Your task to perform on an android device: turn off data saver in the chrome app Image 0: 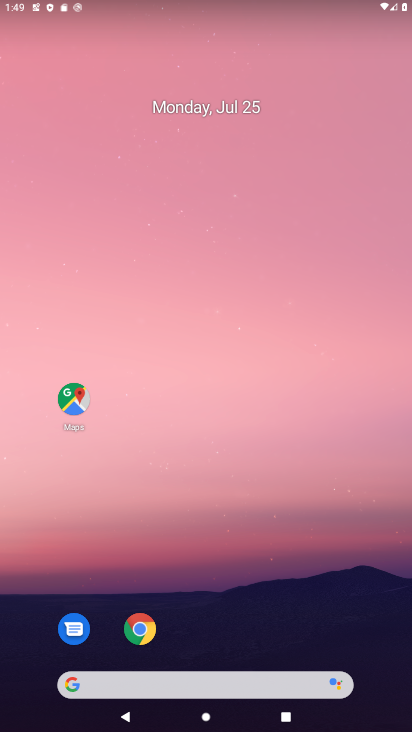
Step 0: drag from (183, 639) to (72, 6)
Your task to perform on an android device: turn off data saver in the chrome app Image 1: 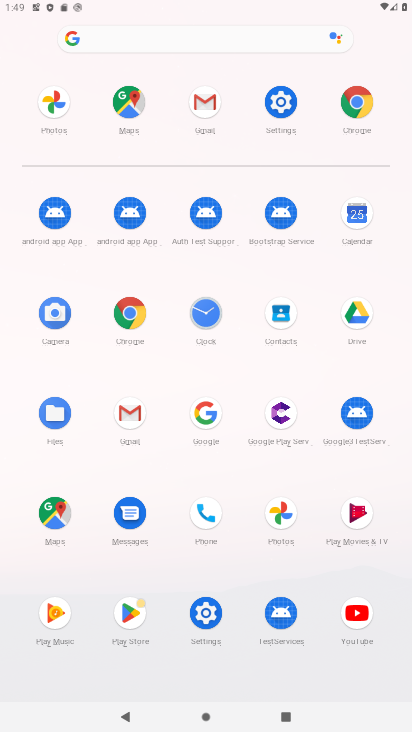
Step 1: click (140, 248)
Your task to perform on an android device: turn off data saver in the chrome app Image 2: 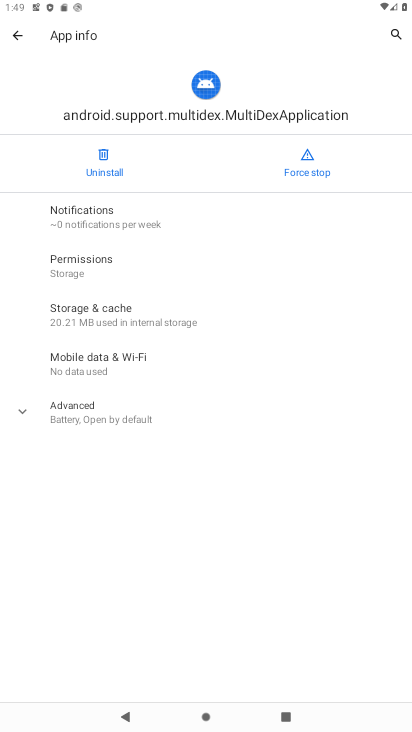
Step 2: click (19, 43)
Your task to perform on an android device: turn off data saver in the chrome app Image 3: 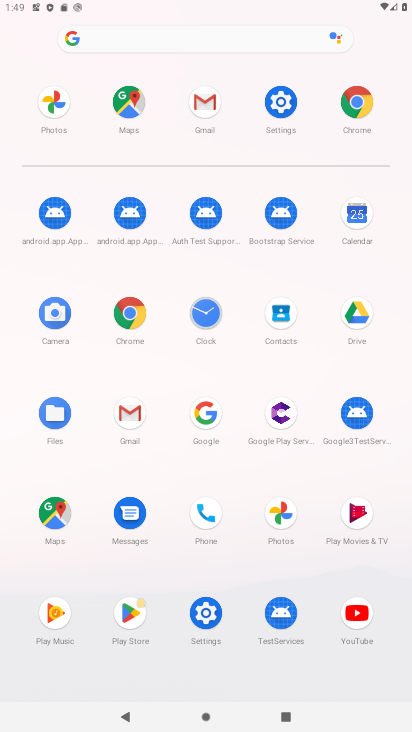
Step 3: drag from (215, 536) to (238, 221)
Your task to perform on an android device: turn off data saver in the chrome app Image 4: 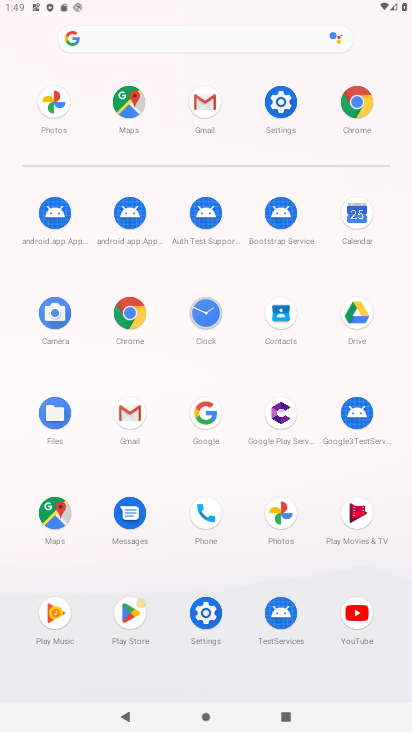
Step 4: click (128, 318)
Your task to perform on an android device: turn off data saver in the chrome app Image 5: 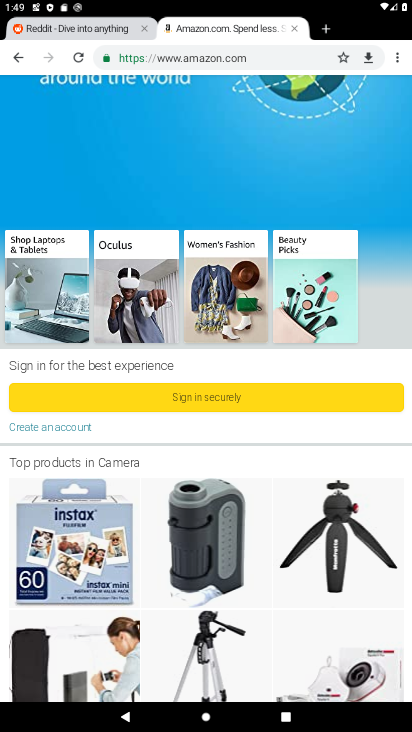
Step 5: drag from (395, 53) to (302, 427)
Your task to perform on an android device: turn off data saver in the chrome app Image 6: 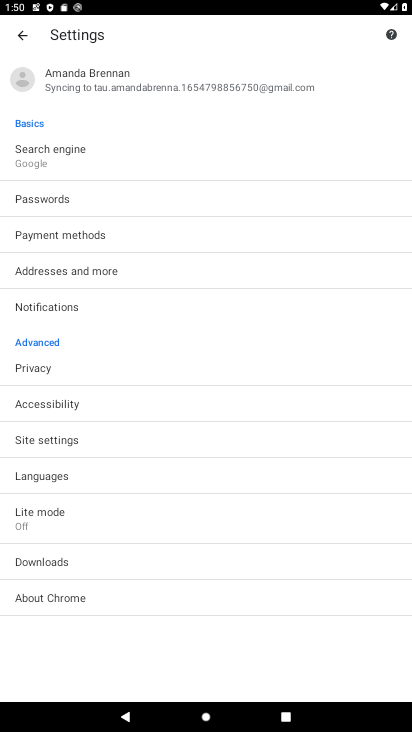
Step 6: drag from (104, 537) to (195, 231)
Your task to perform on an android device: turn off data saver in the chrome app Image 7: 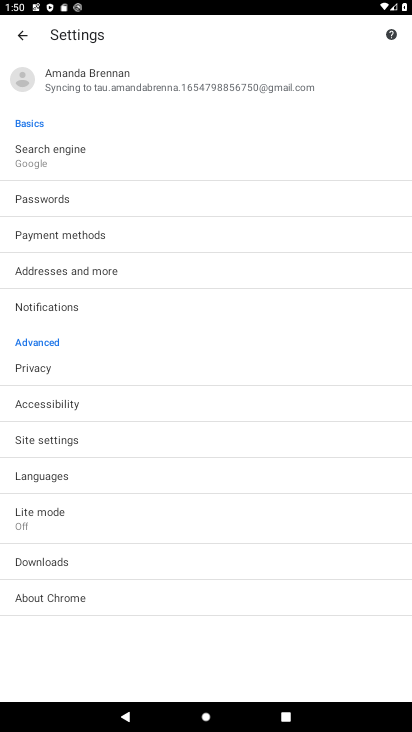
Step 7: click (100, 525)
Your task to perform on an android device: turn off data saver in the chrome app Image 8: 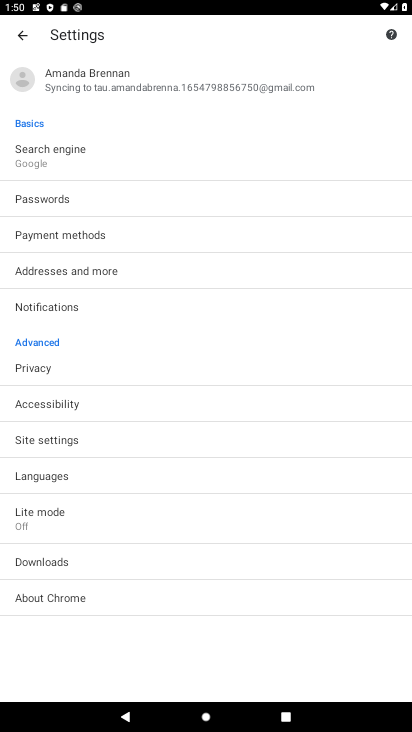
Step 8: drag from (132, 490) to (288, 56)
Your task to perform on an android device: turn off data saver in the chrome app Image 9: 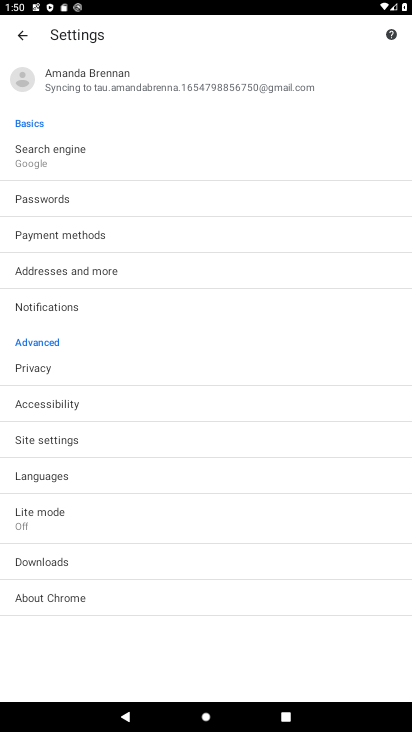
Step 9: click (87, 527)
Your task to perform on an android device: turn off data saver in the chrome app Image 10: 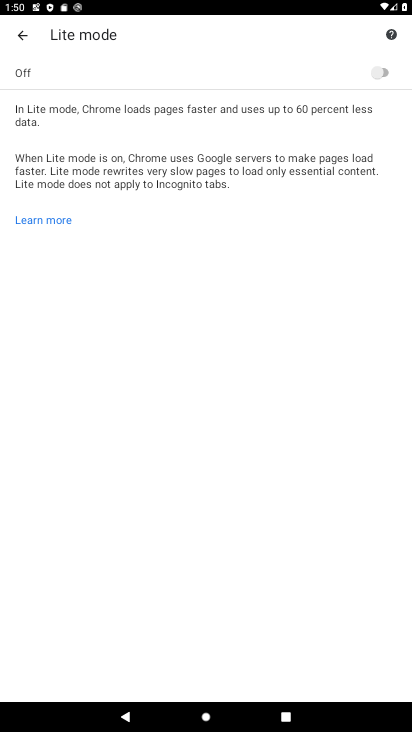
Step 10: task complete